Your task to perform on an android device: turn on sleep mode Image 0: 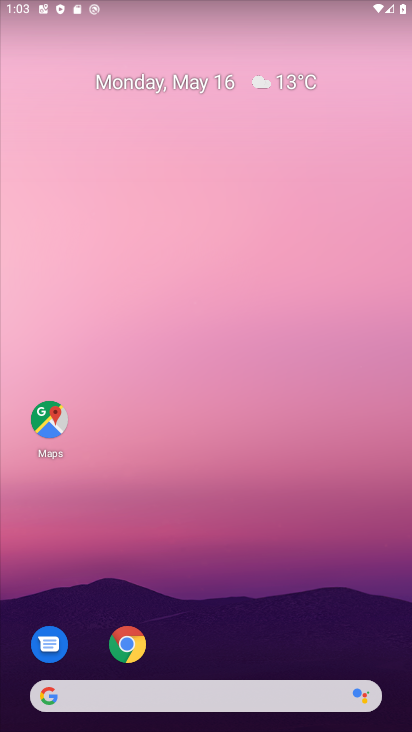
Step 0: drag from (227, 660) to (248, 267)
Your task to perform on an android device: turn on sleep mode Image 1: 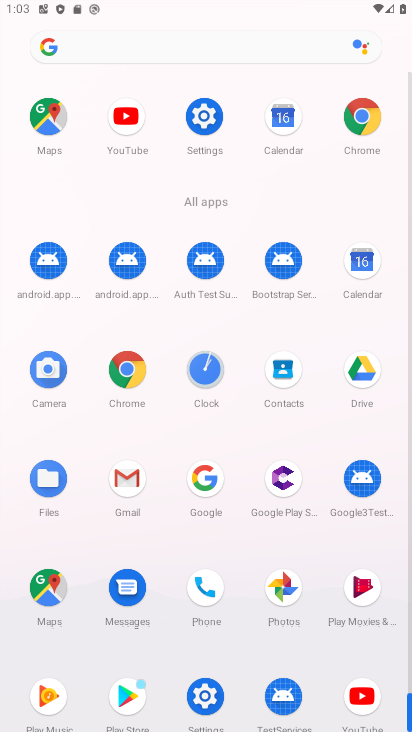
Step 1: click (189, 126)
Your task to perform on an android device: turn on sleep mode Image 2: 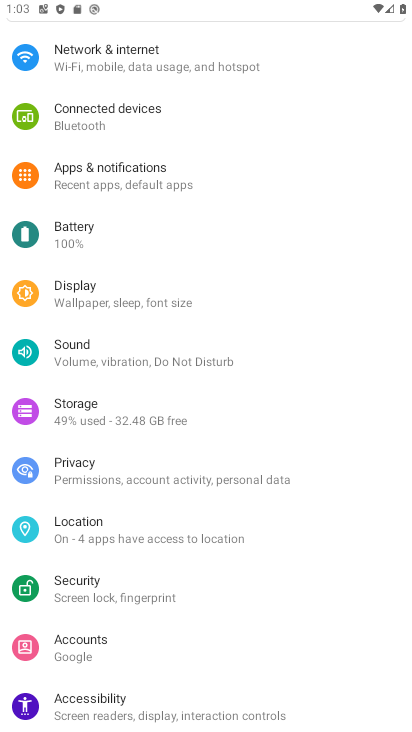
Step 2: click (150, 304)
Your task to perform on an android device: turn on sleep mode Image 3: 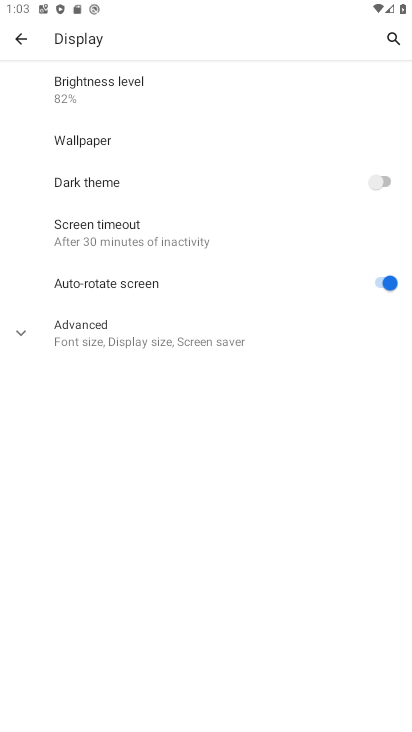
Step 3: click (143, 339)
Your task to perform on an android device: turn on sleep mode Image 4: 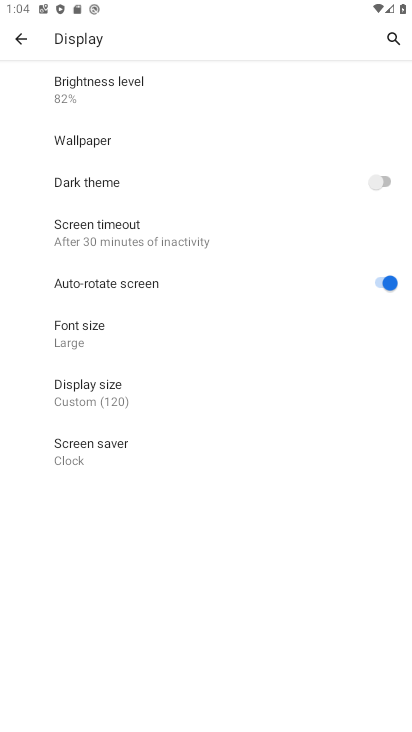
Step 4: task complete